Your task to perform on an android device: Go to CNN.com Image 0: 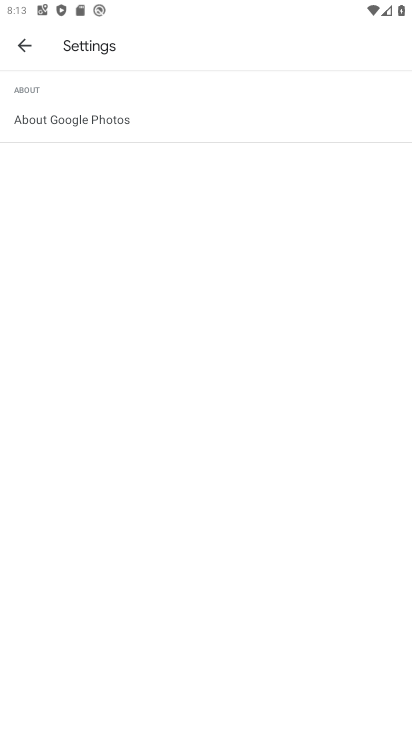
Step 0: press home button
Your task to perform on an android device: Go to CNN.com Image 1: 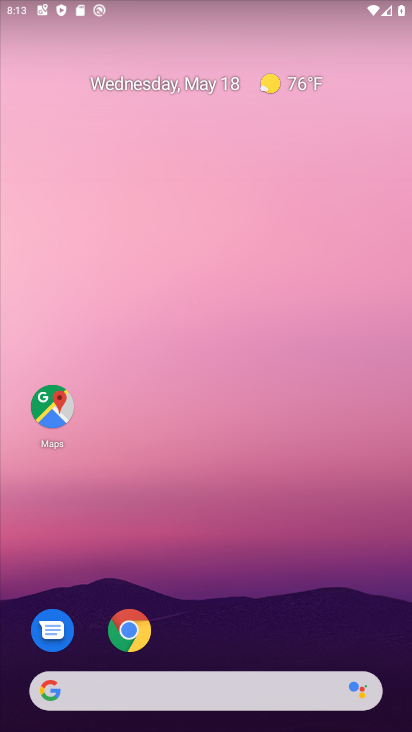
Step 1: click (198, 697)
Your task to perform on an android device: Go to CNN.com Image 2: 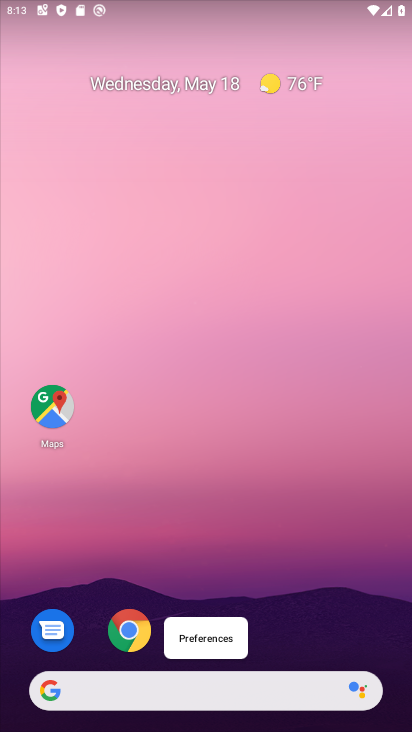
Step 2: type "cnn.com"
Your task to perform on an android device: Go to CNN.com Image 3: 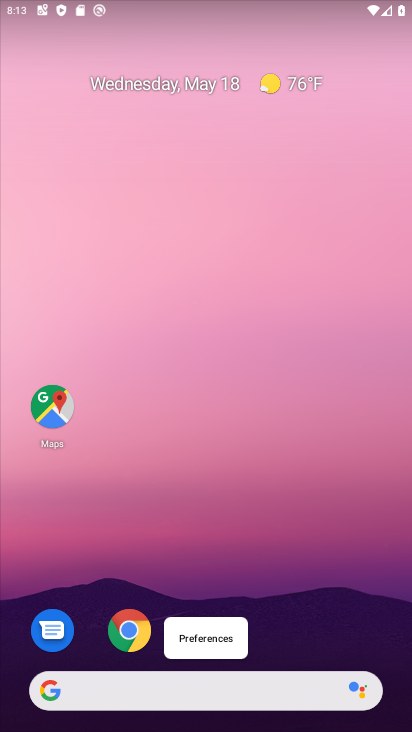
Step 3: drag from (193, 695) to (86, 313)
Your task to perform on an android device: Go to CNN.com Image 4: 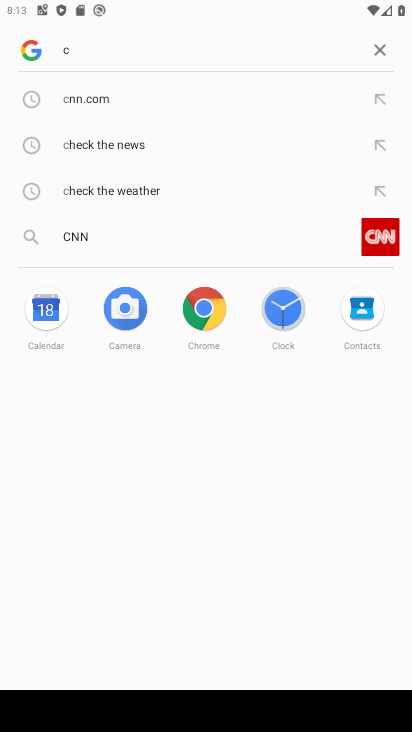
Step 4: click (142, 101)
Your task to perform on an android device: Go to CNN.com Image 5: 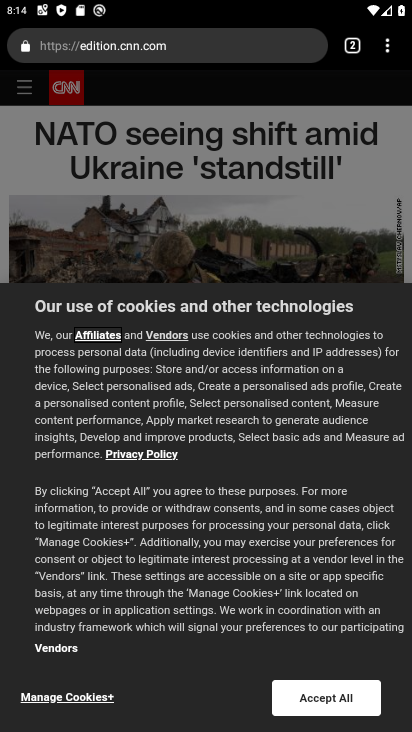
Step 5: task complete